Your task to perform on an android device: Search for usb-a on walmart.com, select the first entry, and add it to the cart. Image 0: 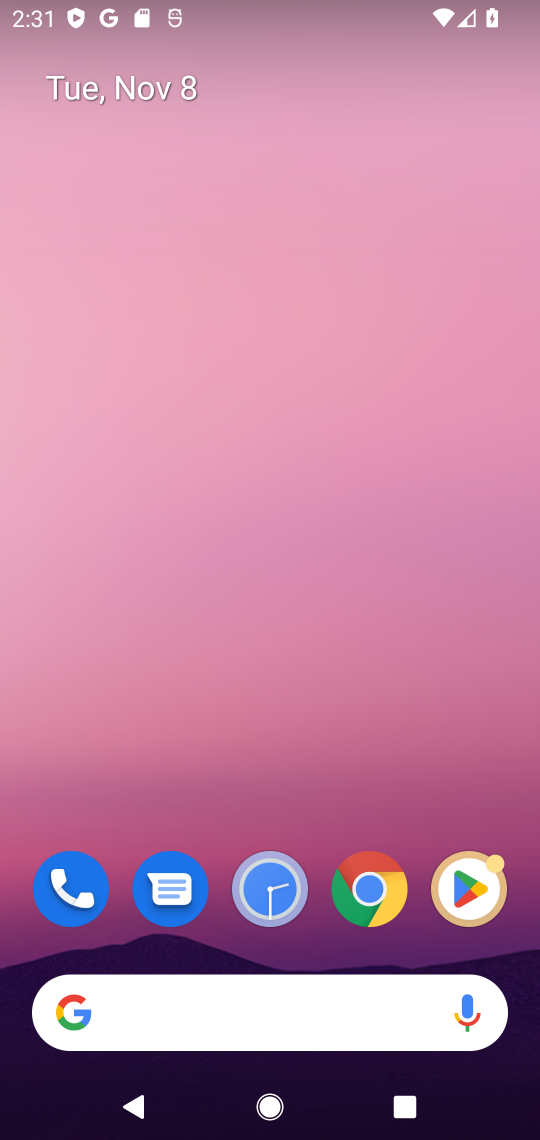
Step 0: click (380, 885)
Your task to perform on an android device: Search for usb-a on walmart.com, select the first entry, and add it to the cart. Image 1: 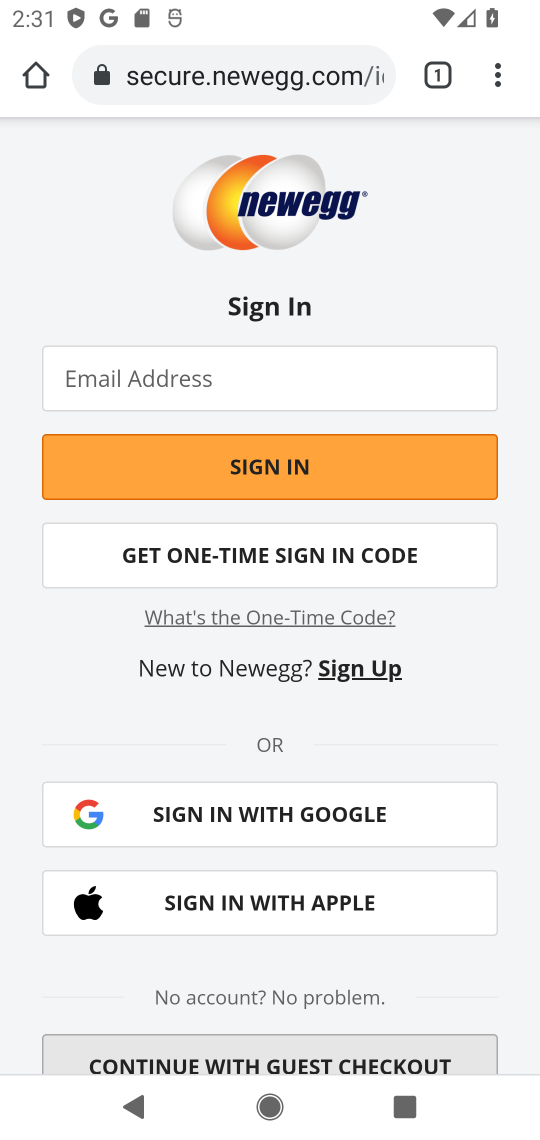
Step 1: click (190, 82)
Your task to perform on an android device: Search for usb-a on walmart.com, select the first entry, and add it to the cart. Image 2: 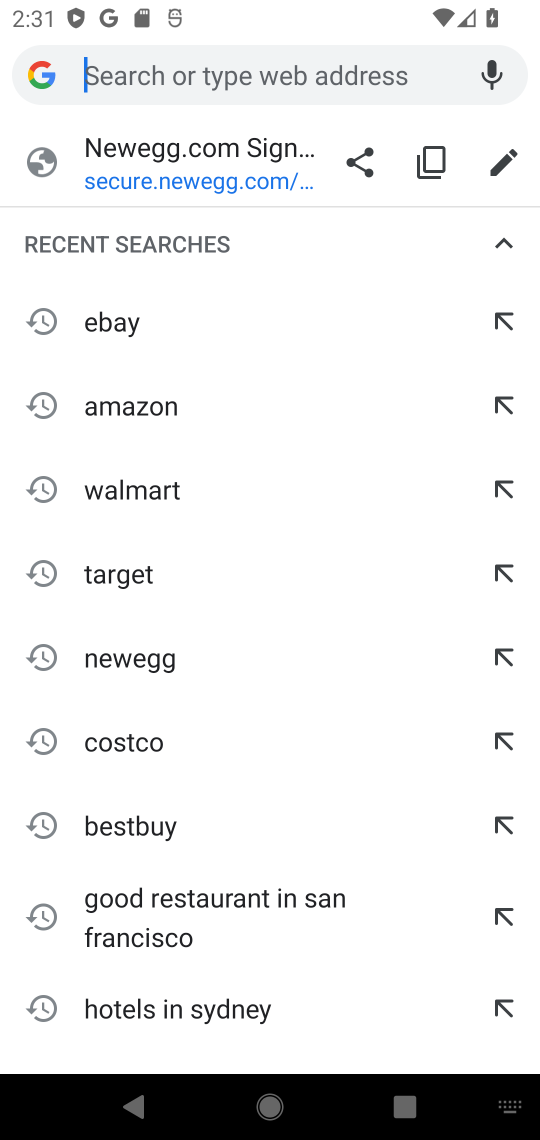
Step 2: type "walmart.com"
Your task to perform on an android device: Search for usb-a on walmart.com, select the first entry, and add it to the cart. Image 3: 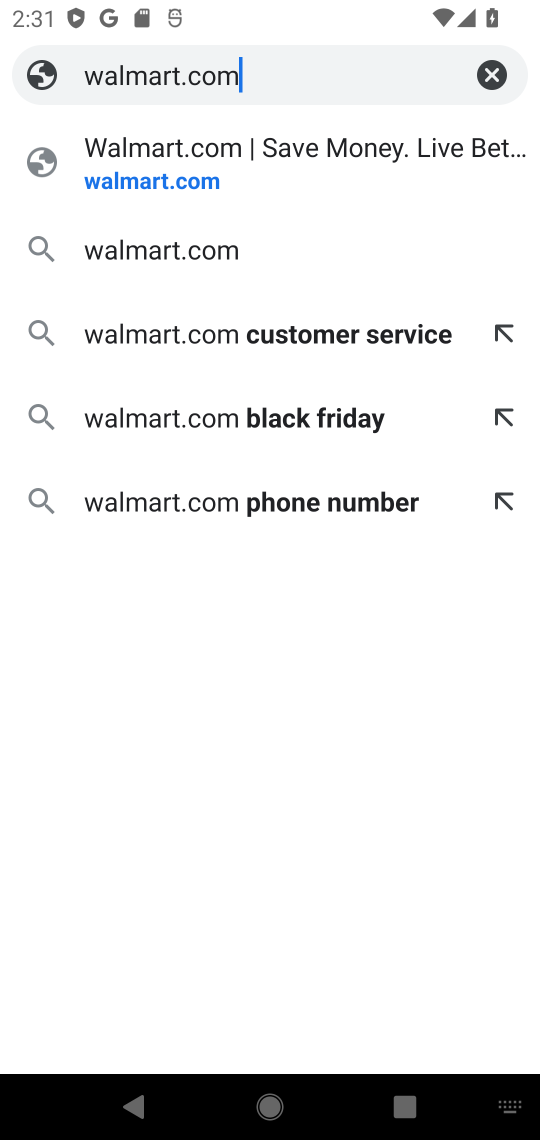
Step 3: click (168, 194)
Your task to perform on an android device: Search for usb-a on walmart.com, select the first entry, and add it to the cart. Image 4: 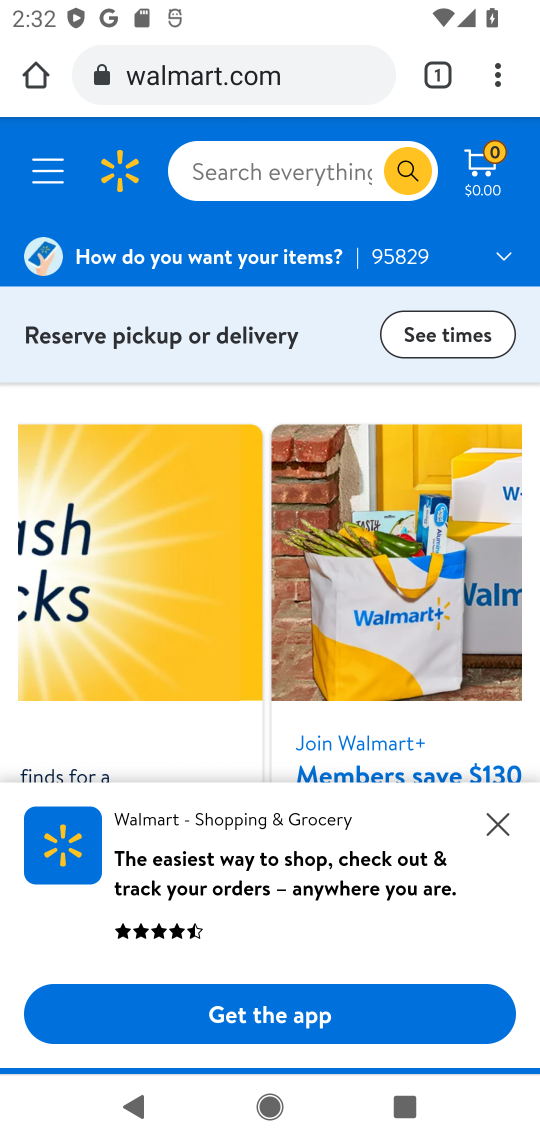
Step 4: click (211, 180)
Your task to perform on an android device: Search for usb-a on walmart.com, select the first entry, and add it to the cart. Image 5: 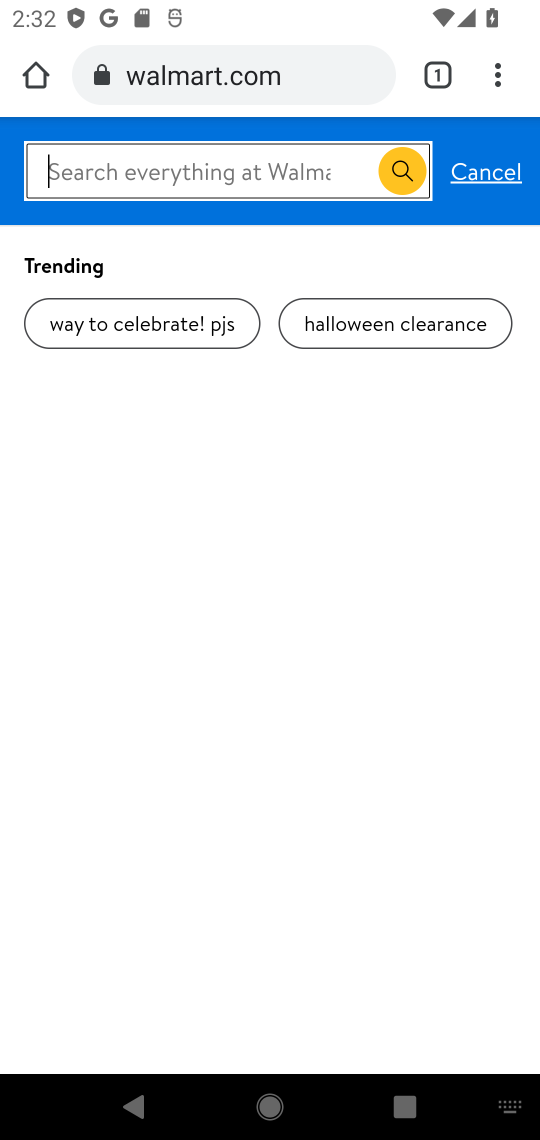
Step 5: type "usb-a "
Your task to perform on an android device: Search for usb-a on walmart.com, select the first entry, and add it to the cart. Image 6: 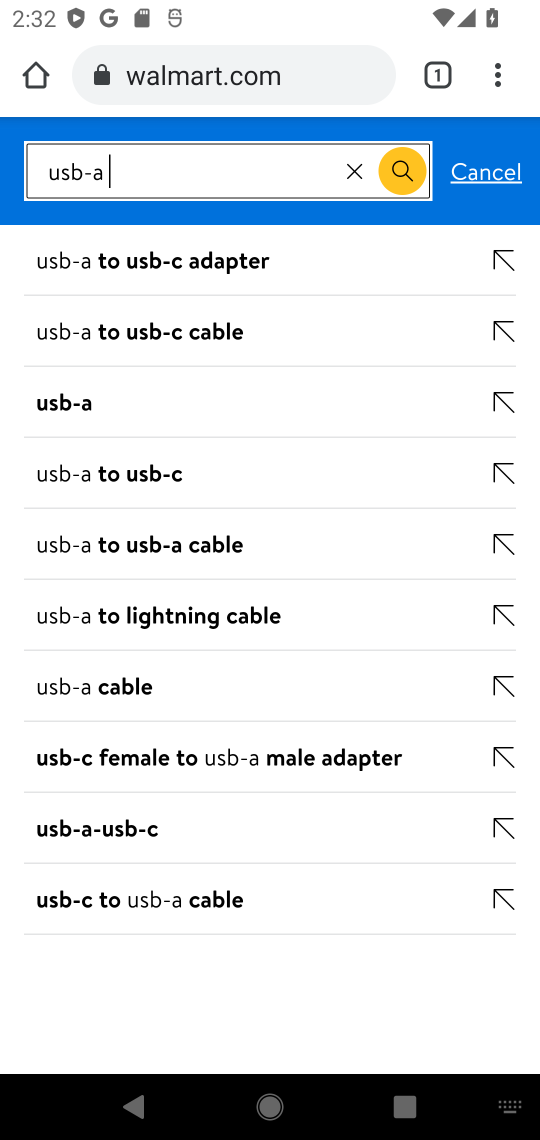
Step 6: click (80, 404)
Your task to perform on an android device: Search for usb-a on walmart.com, select the first entry, and add it to the cart. Image 7: 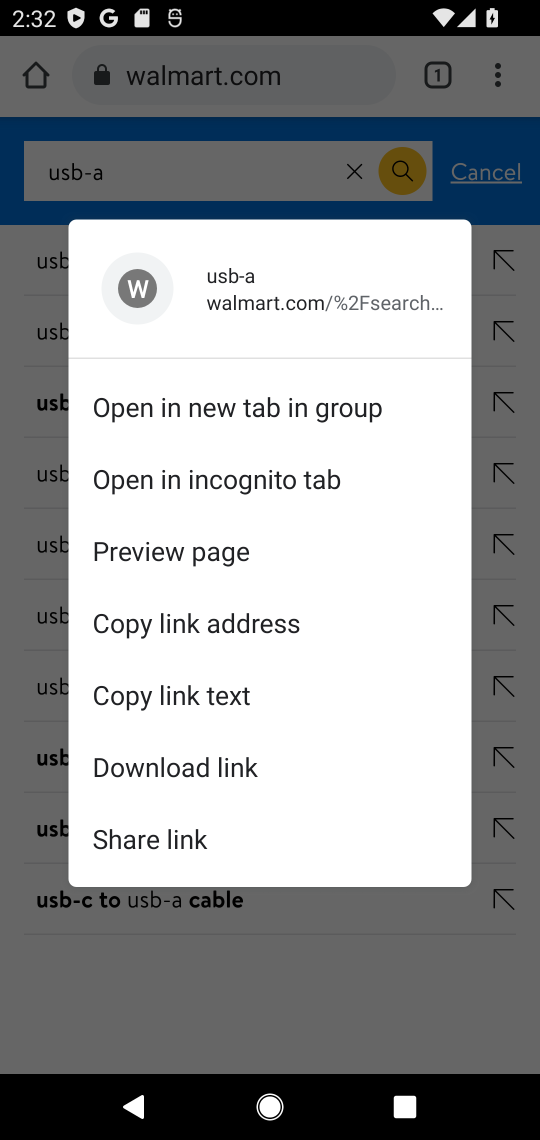
Step 7: click (1, 364)
Your task to perform on an android device: Search for usb-a on walmart.com, select the first entry, and add it to the cart. Image 8: 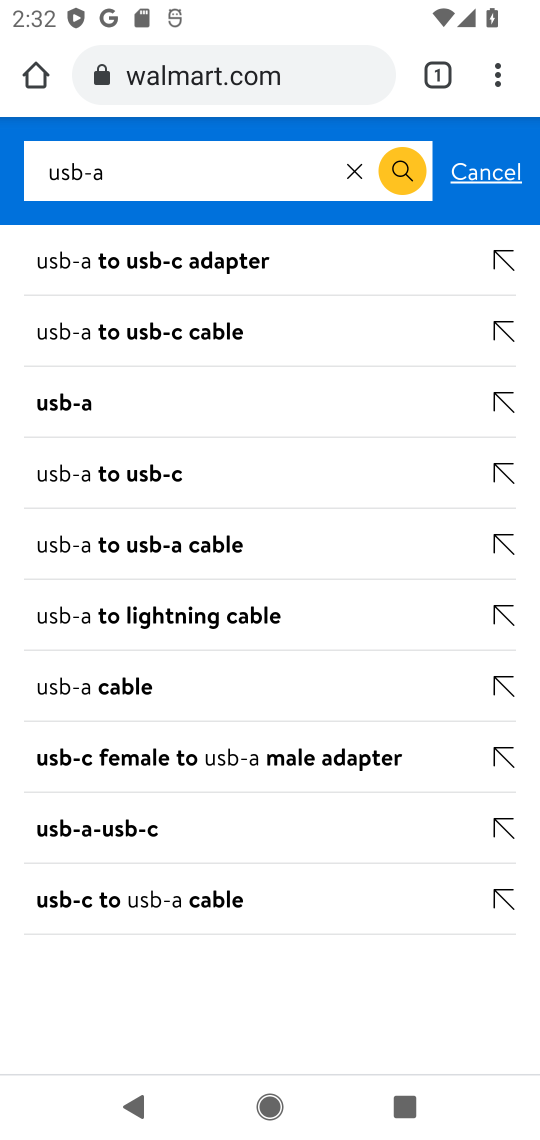
Step 8: click (53, 408)
Your task to perform on an android device: Search for usb-a on walmart.com, select the first entry, and add it to the cart. Image 9: 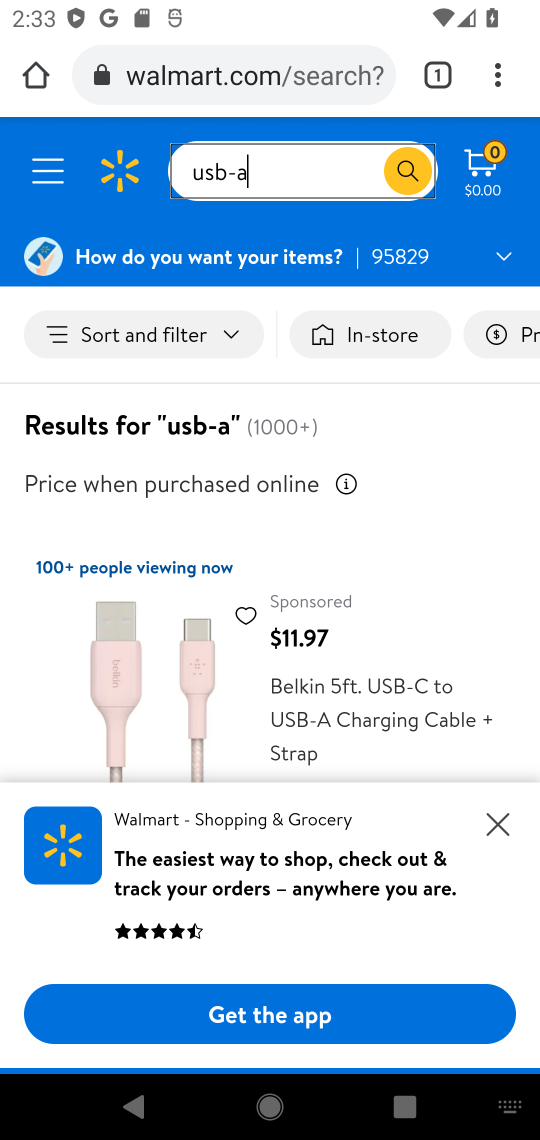
Step 9: click (169, 663)
Your task to perform on an android device: Search for usb-a on walmart.com, select the first entry, and add it to the cart. Image 10: 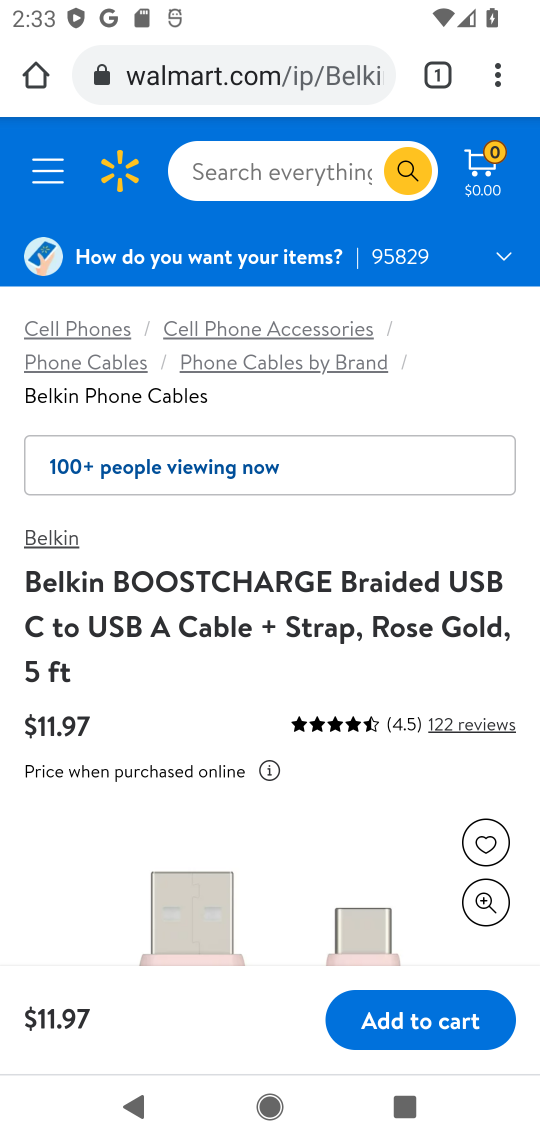
Step 10: click (438, 1018)
Your task to perform on an android device: Search for usb-a on walmart.com, select the first entry, and add it to the cart. Image 11: 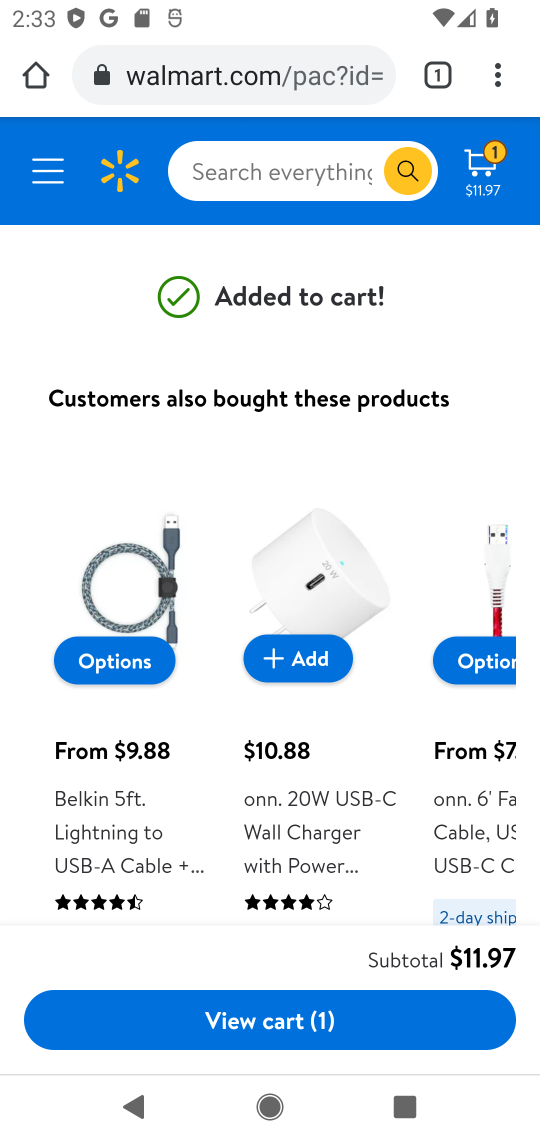
Step 11: task complete